Your task to perform on an android device: What's on my calendar today? Image 0: 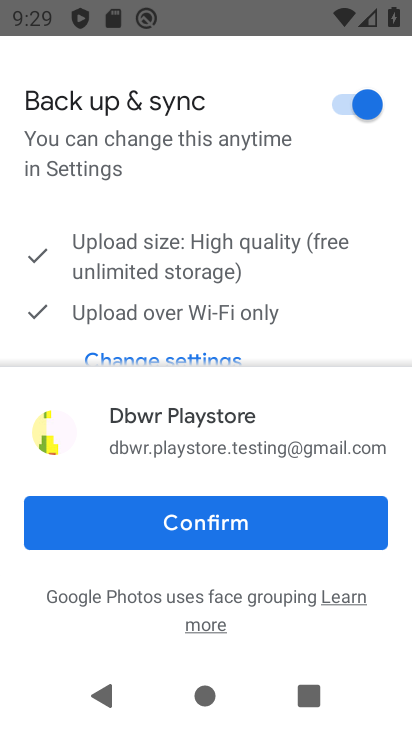
Step 0: press home button
Your task to perform on an android device: What's on my calendar today? Image 1: 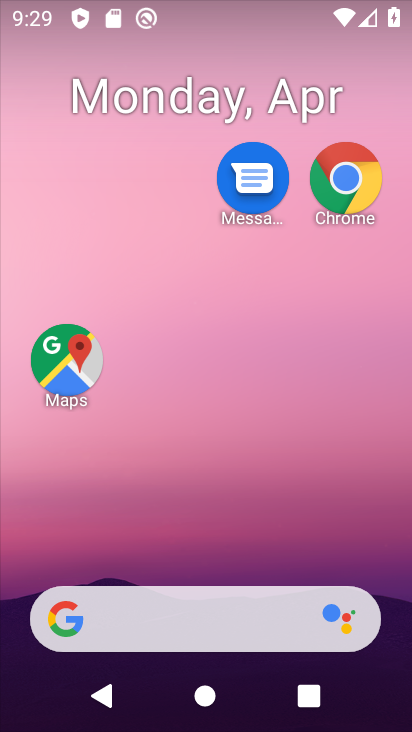
Step 1: drag from (221, 622) to (262, 153)
Your task to perform on an android device: What's on my calendar today? Image 2: 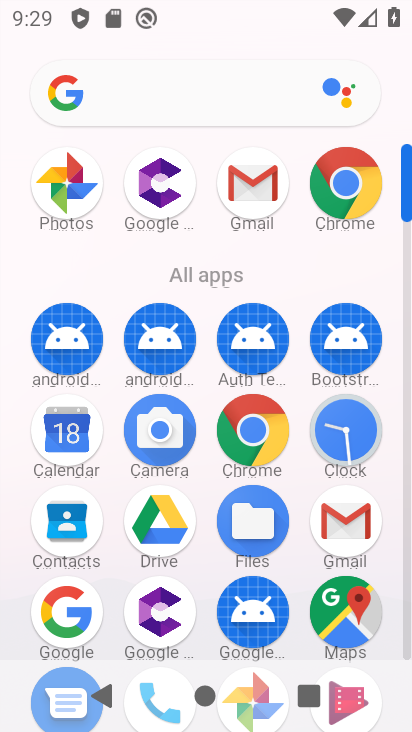
Step 2: click (262, 153)
Your task to perform on an android device: What's on my calendar today? Image 3: 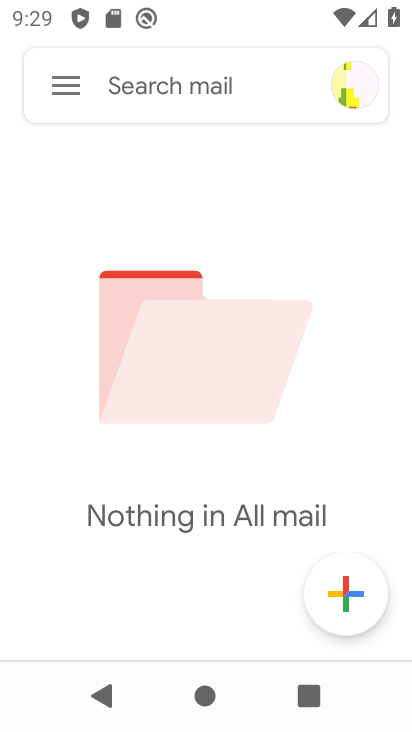
Step 3: press home button
Your task to perform on an android device: What's on my calendar today? Image 4: 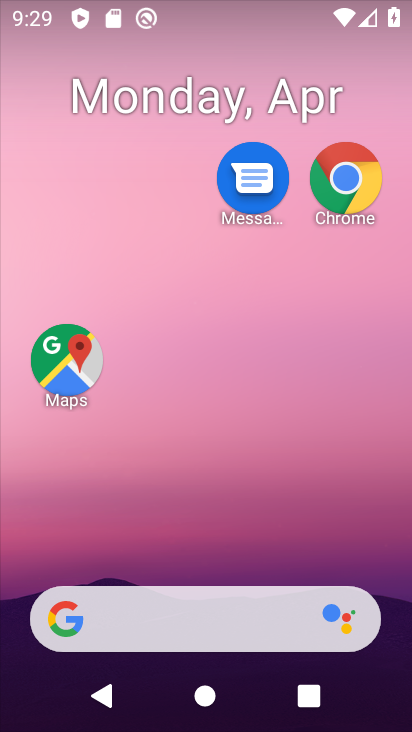
Step 4: drag from (333, 608) to (319, 286)
Your task to perform on an android device: What's on my calendar today? Image 5: 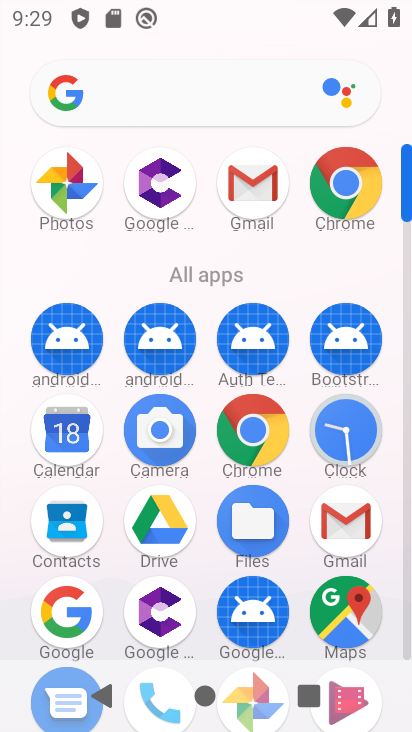
Step 5: click (70, 454)
Your task to perform on an android device: What's on my calendar today? Image 6: 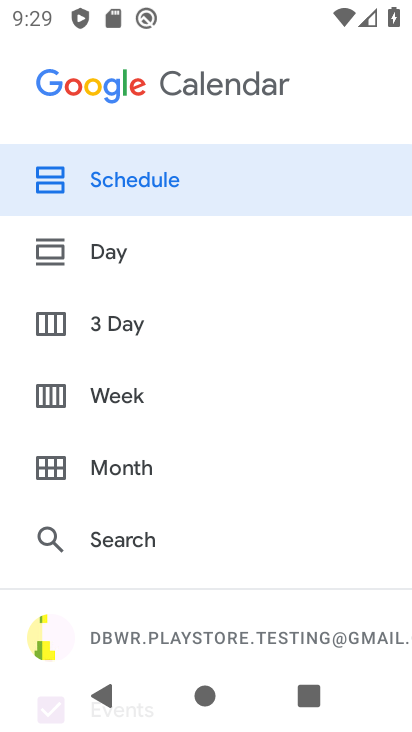
Step 6: task complete